Your task to perform on an android device: What's on my calendar tomorrow? Image 0: 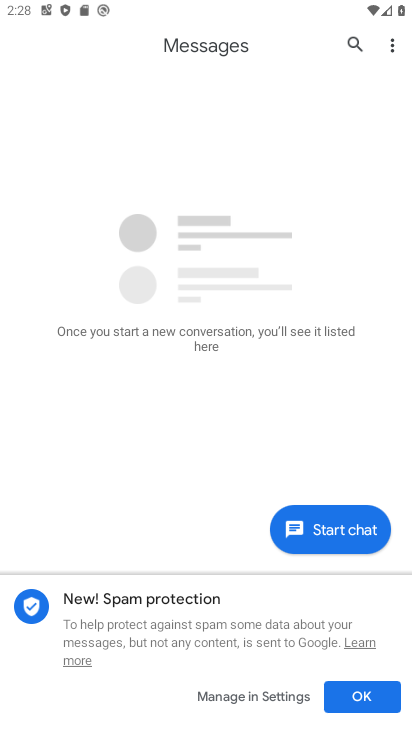
Step 0: press home button
Your task to perform on an android device: What's on my calendar tomorrow? Image 1: 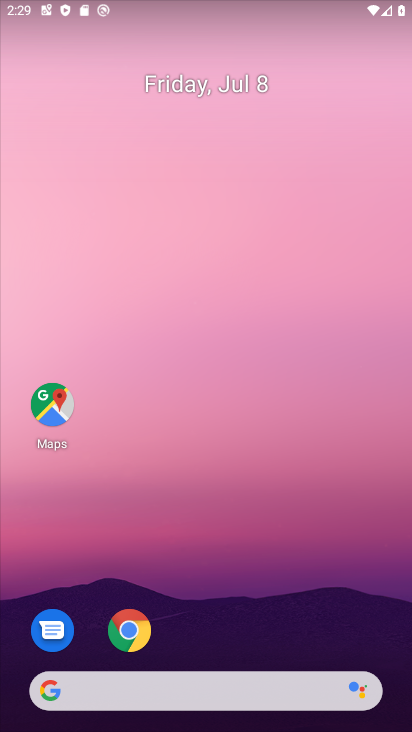
Step 1: drag from (277, 668) to (273, 134)
Your task to perform on an android device: What's on my calendar tomorrow? Image 2: 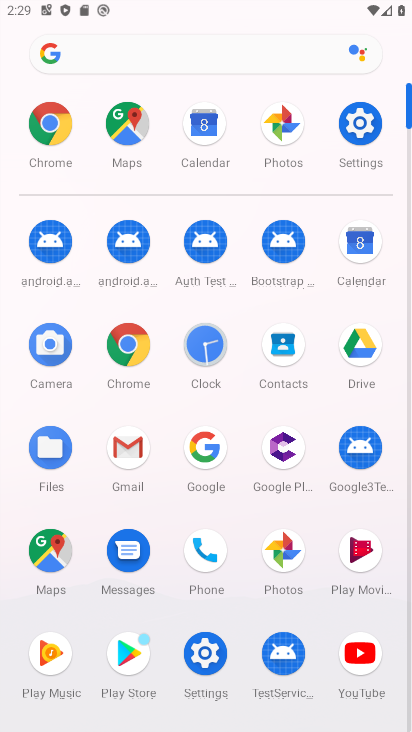
Step 2: click (211, 153)
Your task to perform on an android device: What's on my calendar tomorrow? Image 3: 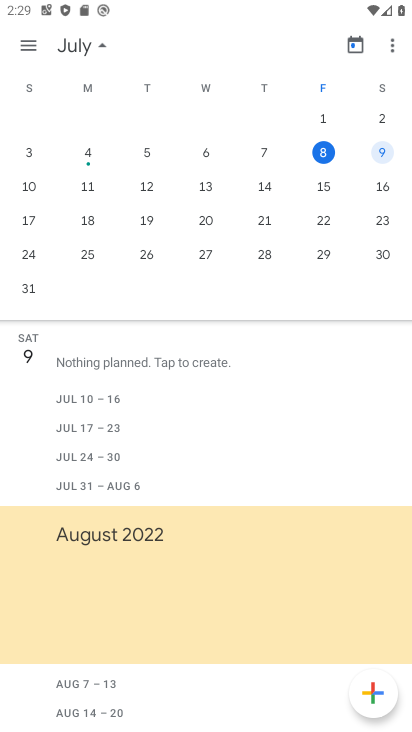
Step 3: task complete